Your task to perform on an android device: Open CNN.com Image 0: 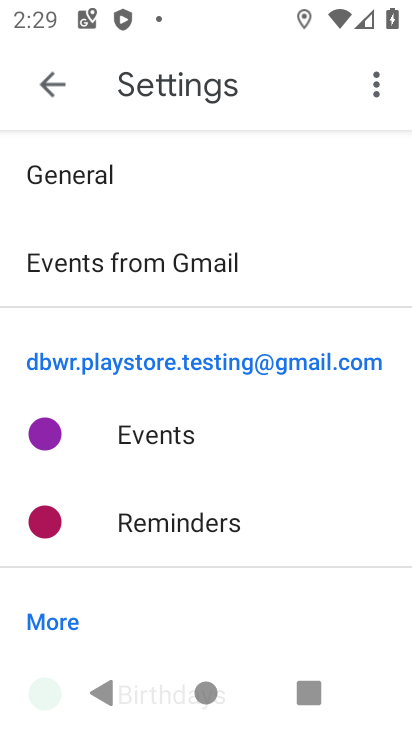
Step 0: press back button
Your task to perform on an android device: Open CNN.com Image 1: 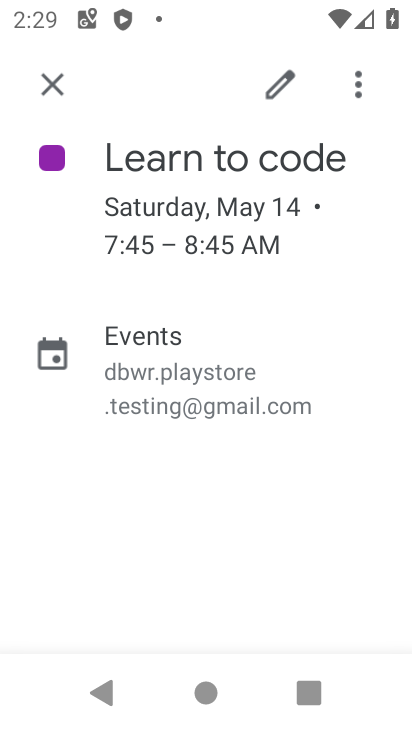
Step 1: task complete